Your task to perform on an android device: Go to accessibility settings Image 0: 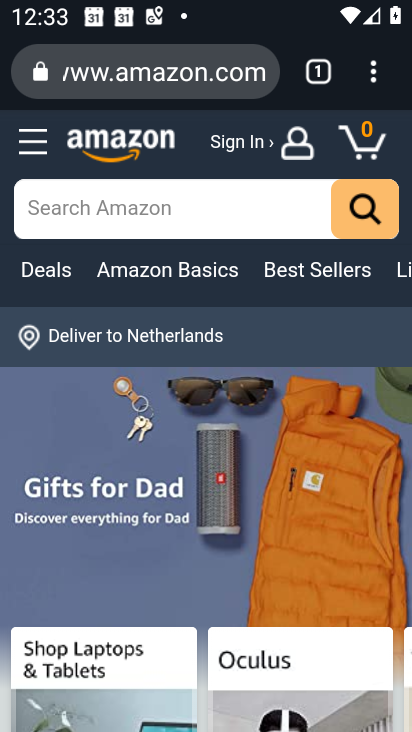
Step 0: press home button
Your task to perform on an android device: Go to accessibility settings Image 1: 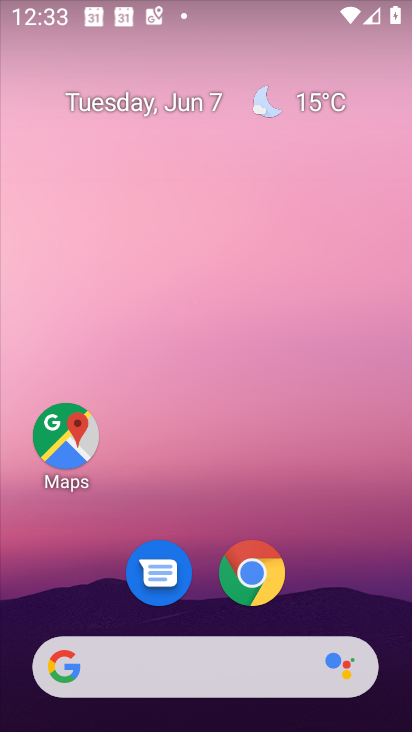
Step 1: drag from (338, 509) to (339, 133)
Your task to perform on an android device: Go to accessibility settings Image 2: 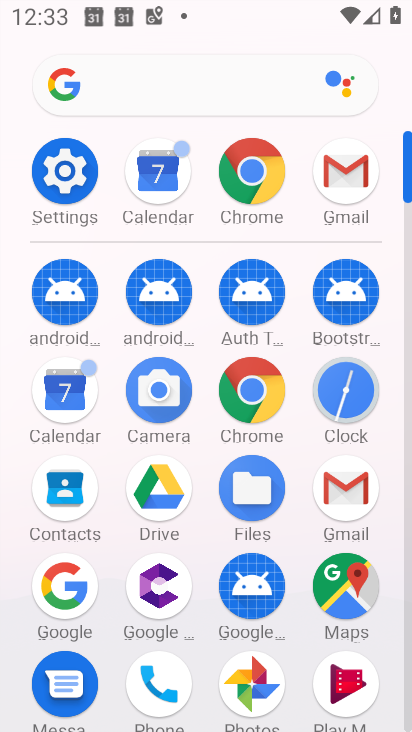
Step 2: click (66, 182)
Your task to perform on an android device: Go to accessibility settings Image 3: 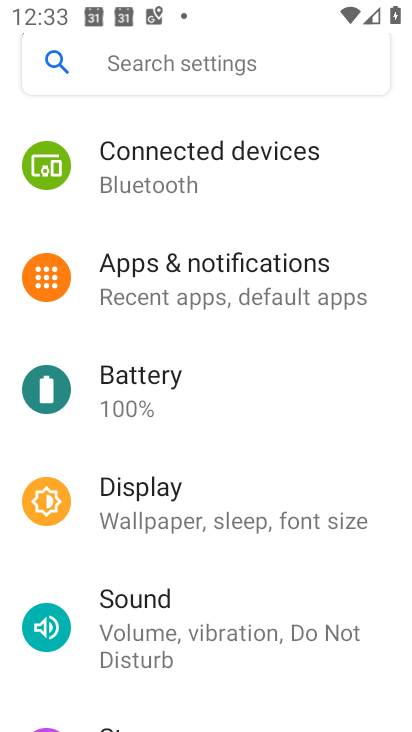
Step 3: drag from (285, 623) to (322, 32)
Your task to perform on an android device: Go to accessibility settings Image 4: 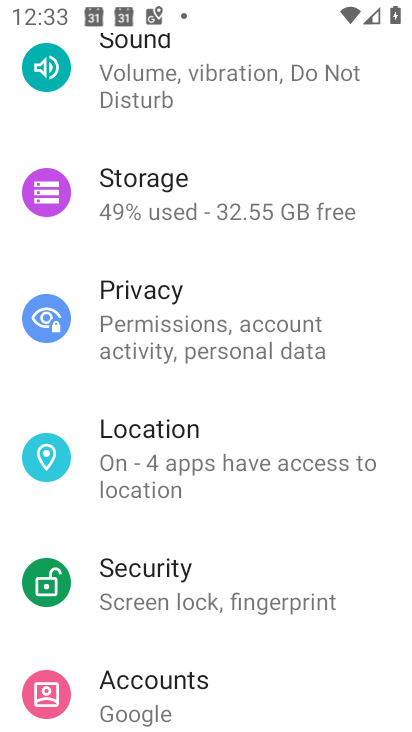
Step 4: drag from (346, 683) to (329, 150)
Your task to perform on an android device: Go to accessibility settings Image 5: 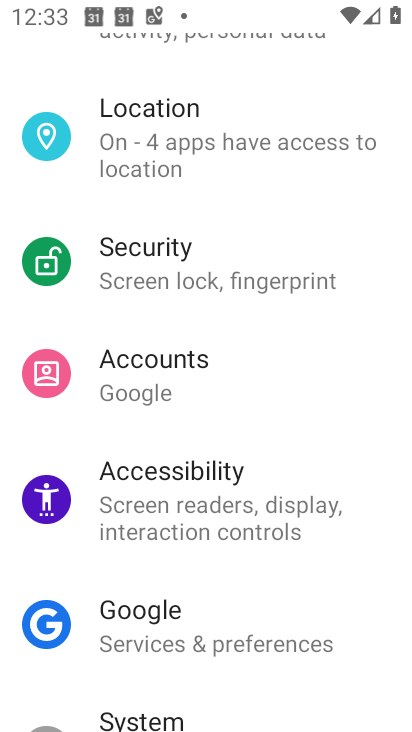
Step 5: click (242, 483)
Your task to perform on an android device: Go to accessibility settings Image 6: 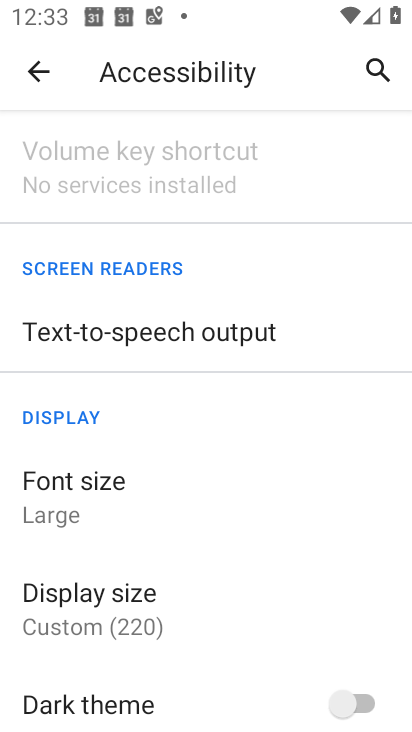
Step 6: task complete